Your task to perform on an android device: turn on sleep mode Image 0: 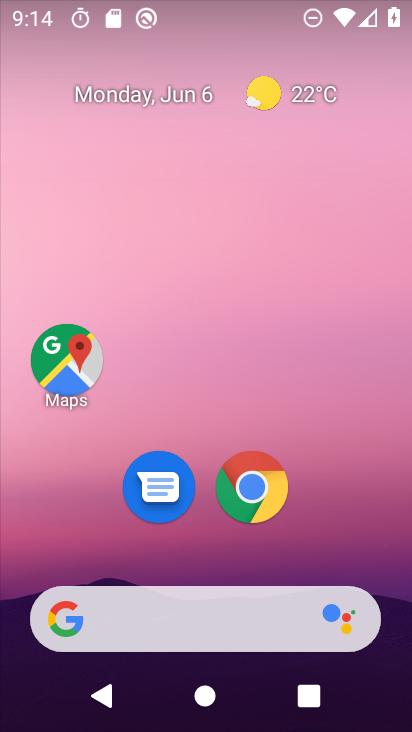
Step 0: drag from (396, 605) to (180, 24)
Your task to perform on an android device: turn on sleep mode Image 1: 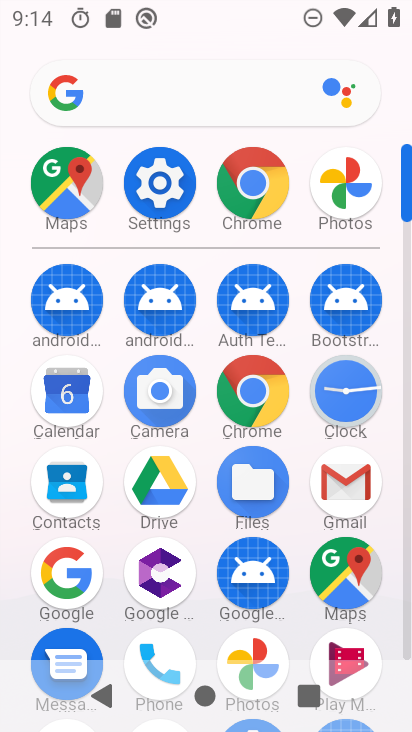
Step 1: click (157, 181)
Your task to perform on an android device: turn on sleep mode Image 2: 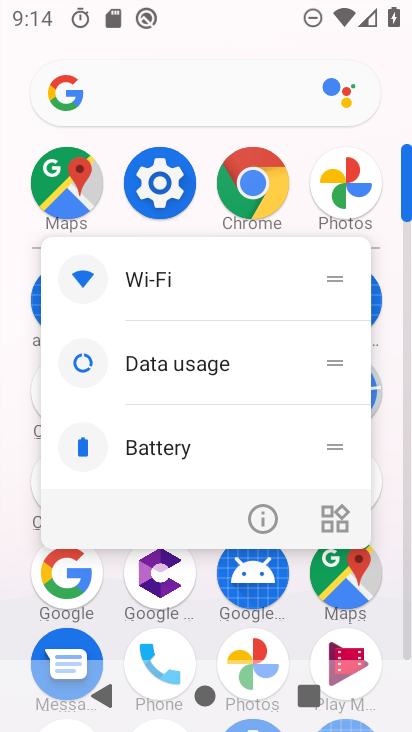
Step 2: click (154, 198)
Your task to perform on an android device: turn on sleep mode Image 3: 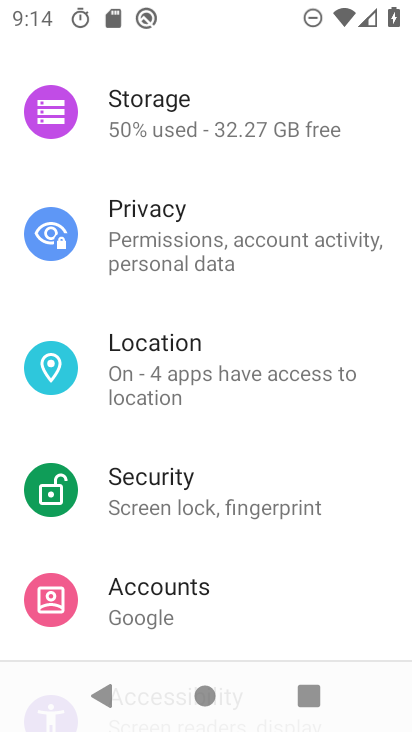
Step 3: task complete